Your task to perform on an android device: Open notification settings Image 0: 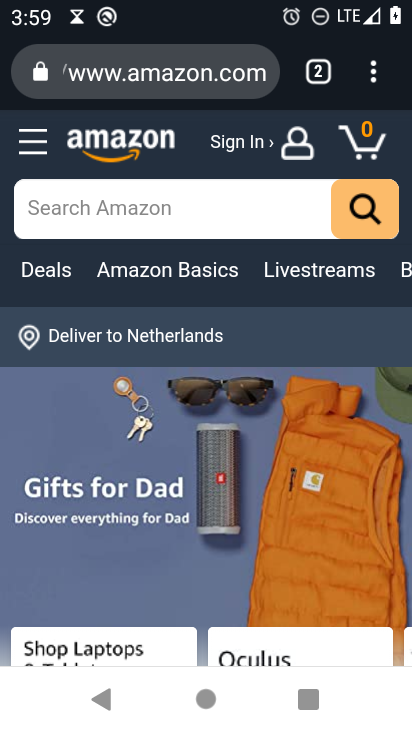
Step 0: press home button
Your task to perform on an android device: Open notification settings Image 1: 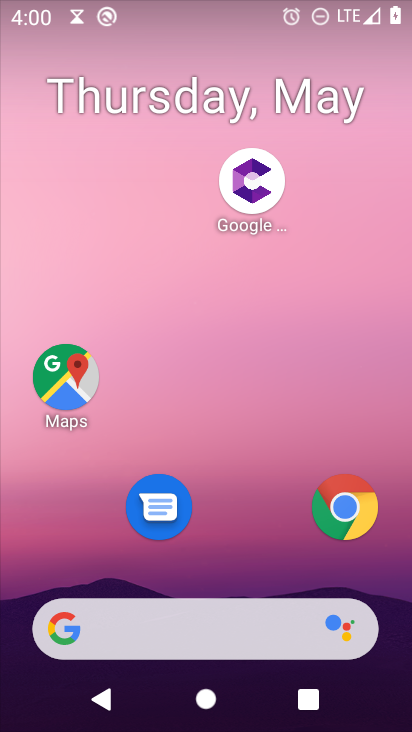
Step 1: drag from (220, 590) to (175, 174)
Your task to perform on an android device: Open notification settings Image 2: 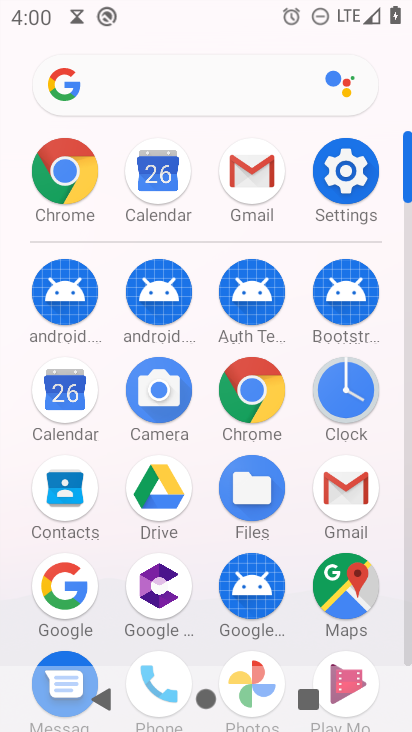
Step 2: click (352, 165)
Your task to perform on an android device: Open notification settings Image 3: 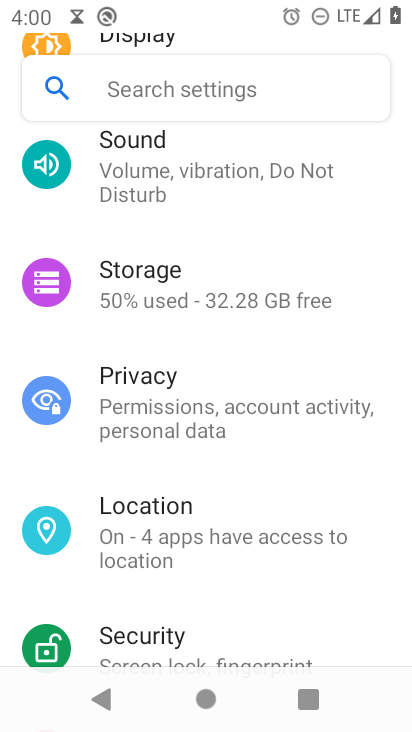
Step 3: drag from (225, 213) to (187, 635)
Your task to perform on an android device: Open notification settings Image 4: 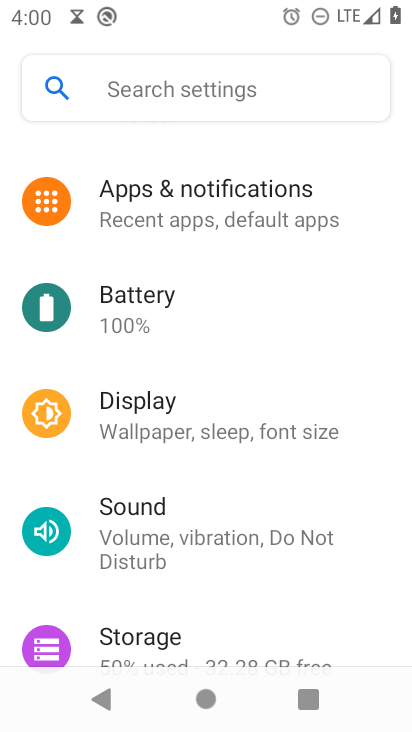
Step 4: click (189, 183)
Your task to perform on an android device: Open notification settings Image 5: 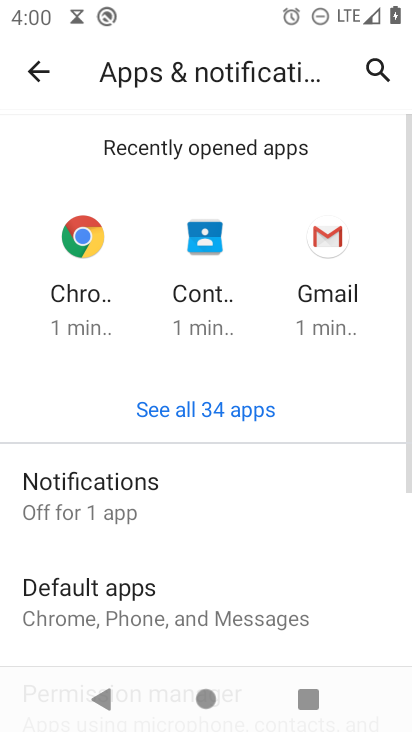
Step 5: click (82, 487)
Your task to perform on an android device: Open notification settings Image 6: 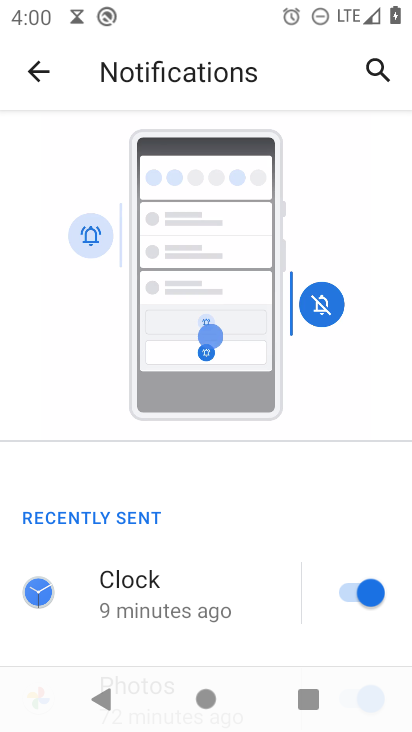
Step 6: task complete